Your task to perform on an android device: open chrome and create a bookmark for the current page Image 0: 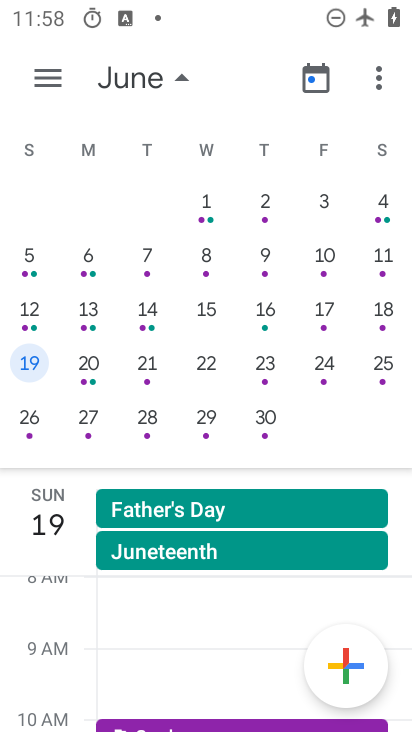
Step 0: press home button
Your task to perform on an android device: open chrome and create a bookmark for the current page Image 1: 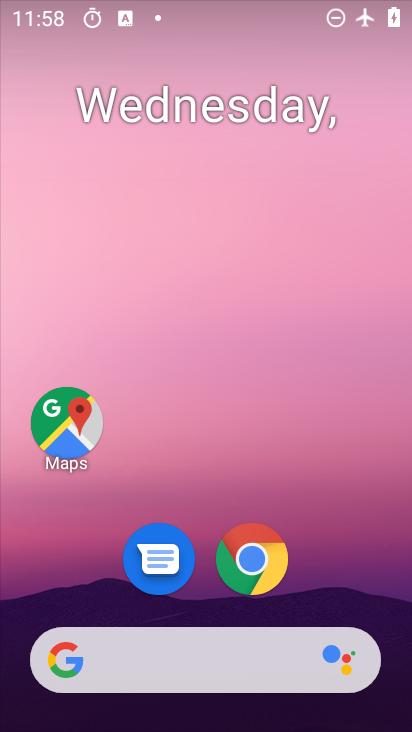
Step 1: drag from (238, 674) to (283, 41)
Your task to perform on an android device: open chrome and create a bookmark for the current page Image 2: 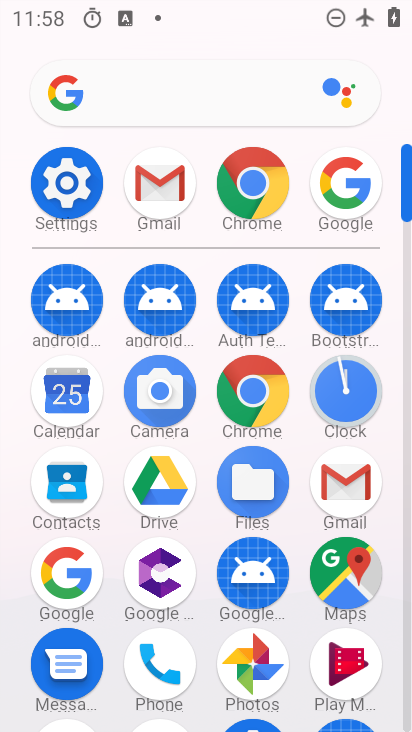
Step 2: click (262, 174)
Your task to perform on an android device: open chrome and create a bookmark for the current page Image 3: 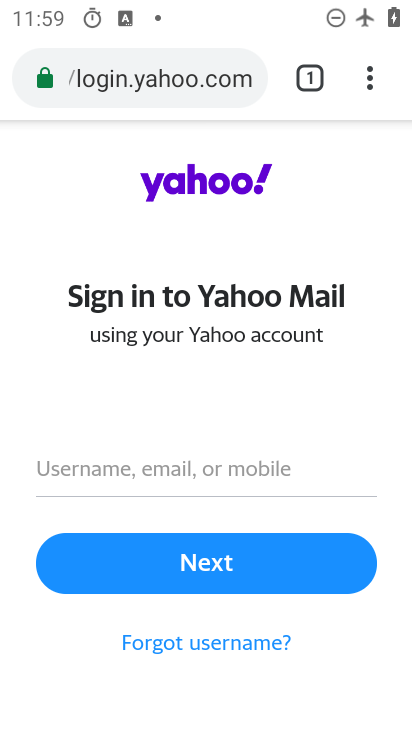
Step 3: click (361, 69)
Your task to perform on an android device: open chrome and create a bookmark for the current page Image 4: 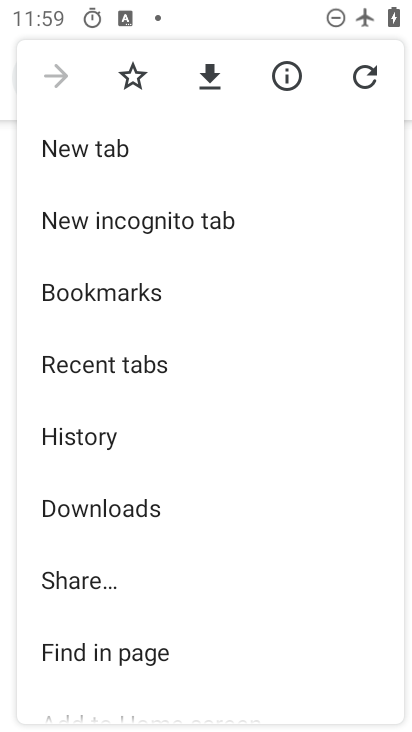
Step 4: click (137, 87)
Your task to perform on an android device: open chrome and create a bookmark for the current page Image 5: 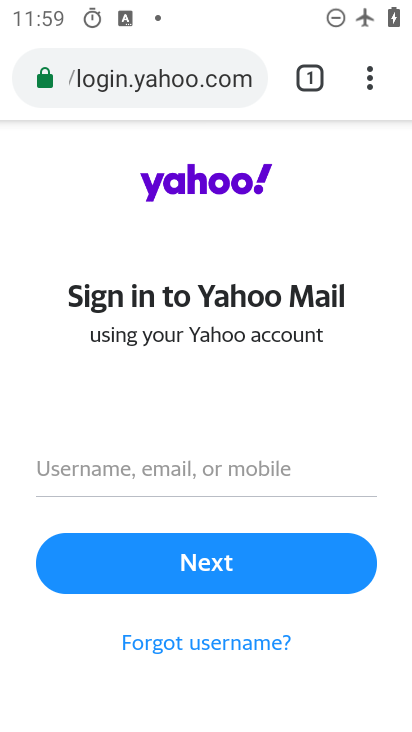
Step 5: task complete